Your task to perform on an android device: What is the capital of Mexico? Image 0: 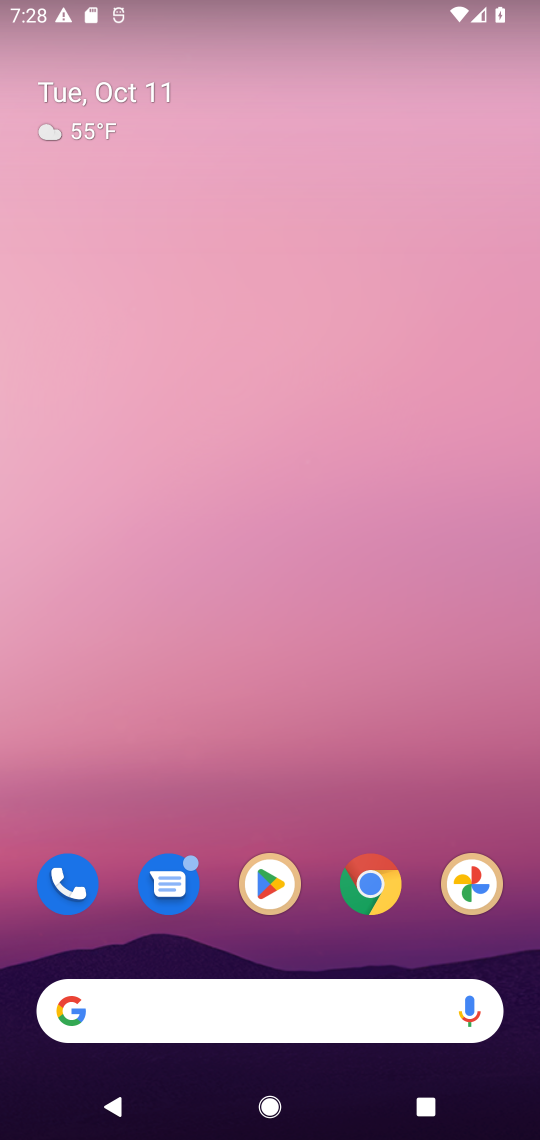
Step 0: drag from (269, 939) to (180, 157)
Your task to perform on an android device: What is the capital of Mexico? Image 1: 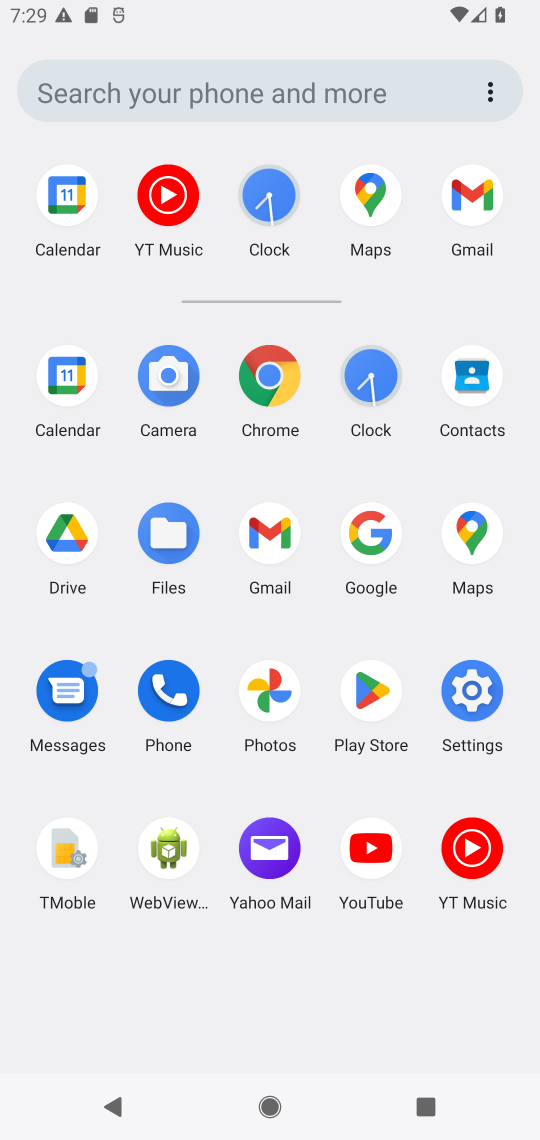
Step 1: click (370, 532)
Your task to perform on an android device: What is the capital of Mexico? Image 2: 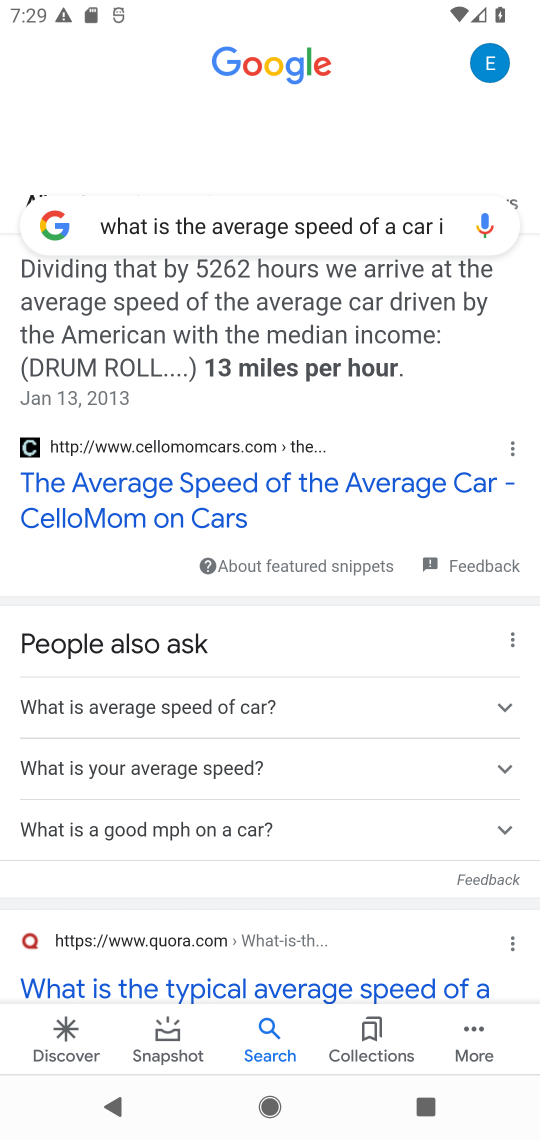
Step 2: click (282, 225)
Your task to perform on an android device: What is the capital of Mexico? Image 3: 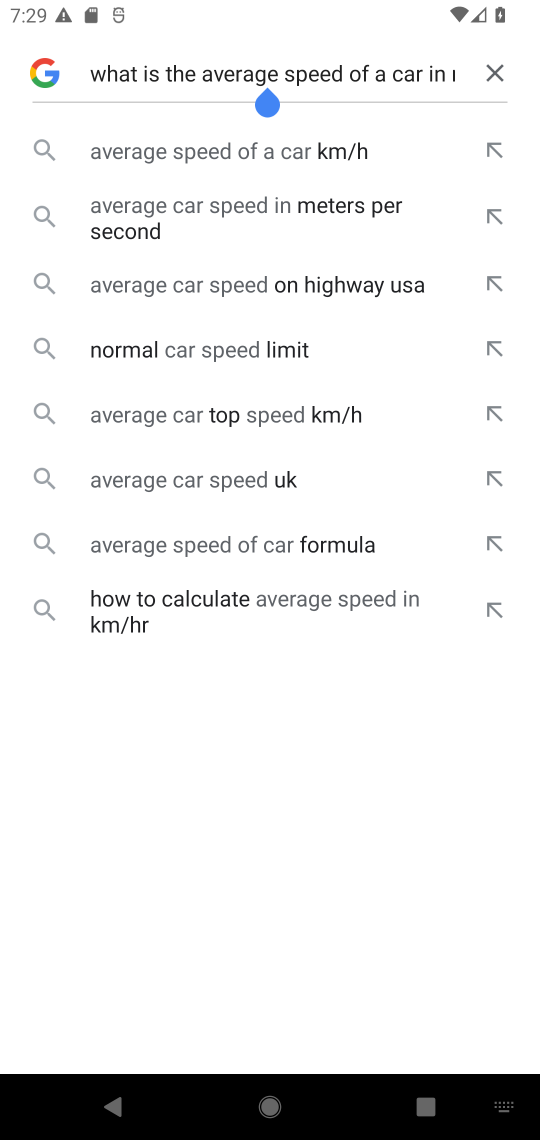
Step 3: click (496, 67)
Your task to perform on an android device: What is the capital of Mexico? Image 4: 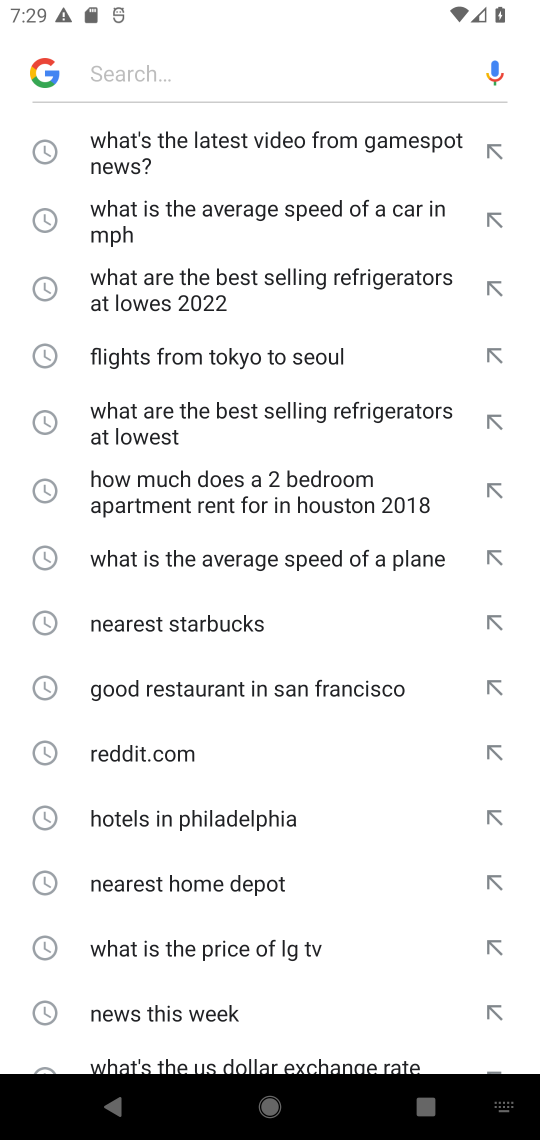
Step 4: type "What is the capital of Mexico?"
Your task to perform on an android device: What is the capital of Mexico? Image 5: 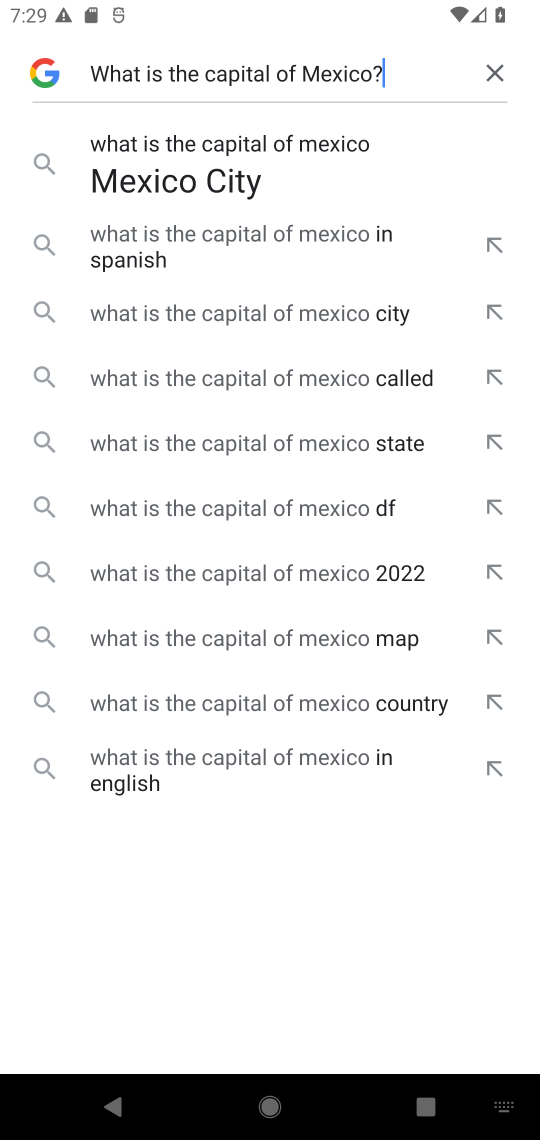
Step 5: type ""
Your task to perform on an android device: What is the capital of Mexico? Image 6: 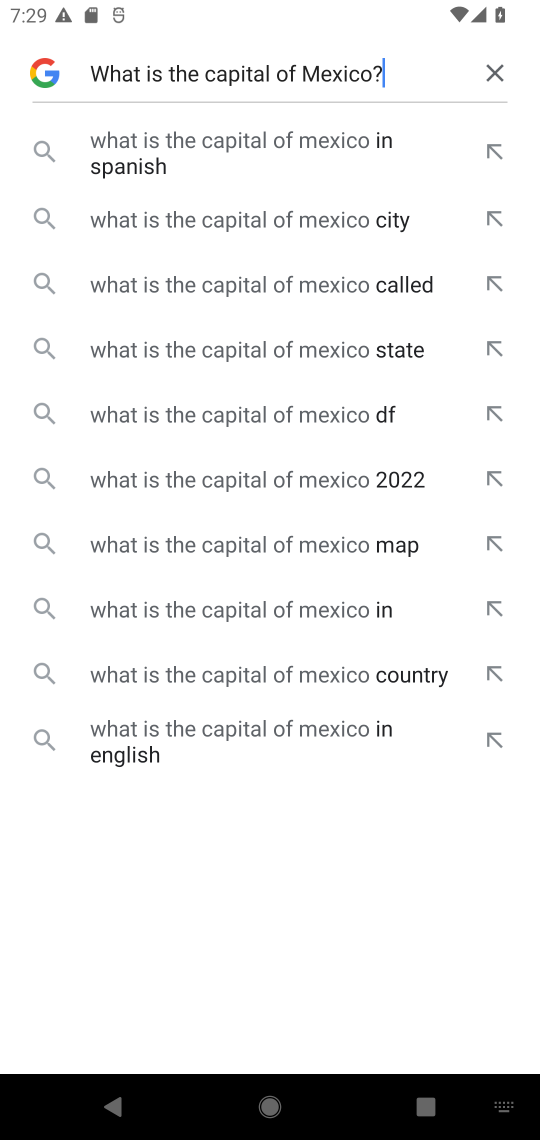
Step 6: click (206, 614)
Your task to perform on an android device: What is the capital of Mexico? Image 7: 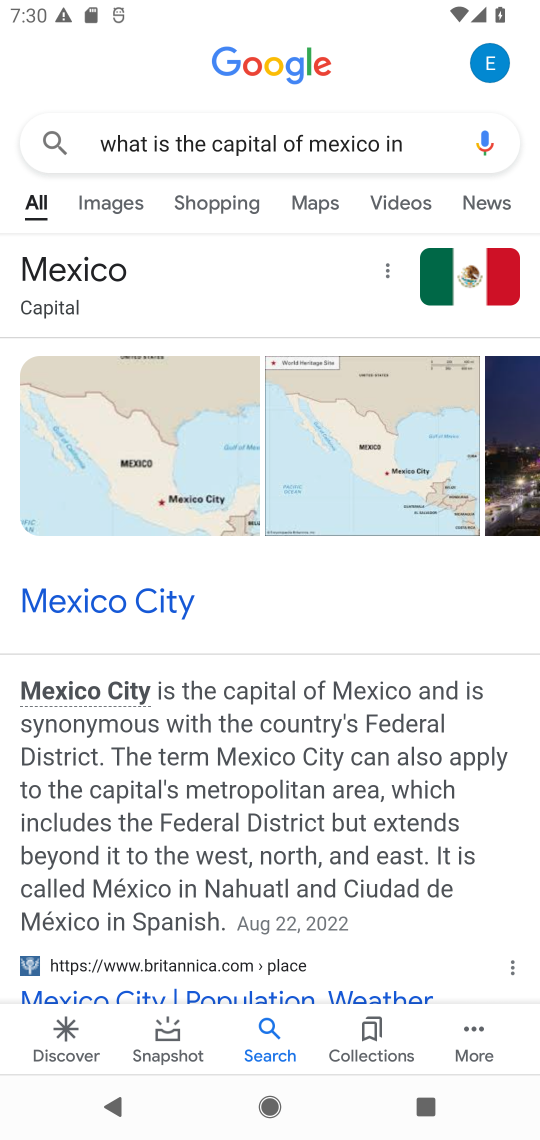
Step 7: task complete